Your task to perform on an android device: Open calendar and show me the second week of next month Image 0: 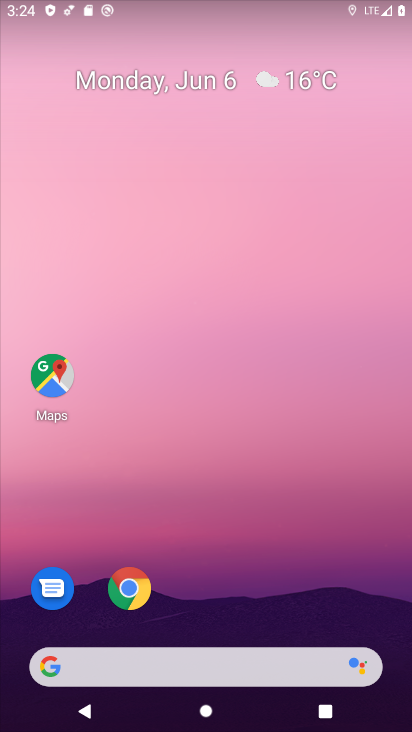
Step 0: drag from (217, 623) to (170, 278)
Your task to perform on an android device: Open calendar and show me the second week of next month Image 1: 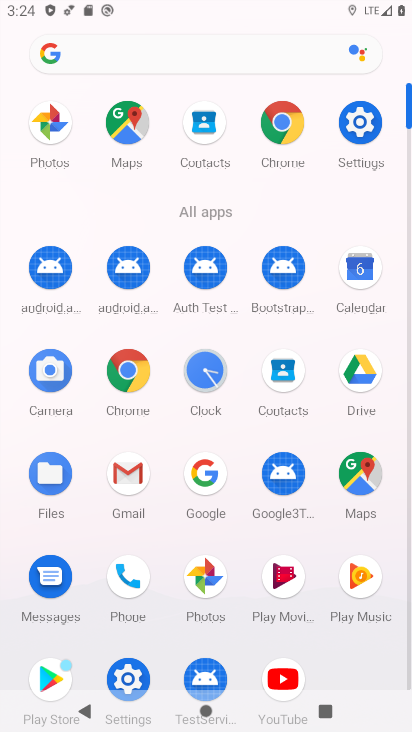
Step 1: click (372, 274)
Your task to perform on an android device: Open calendar and show me the second week of next month Image 2: 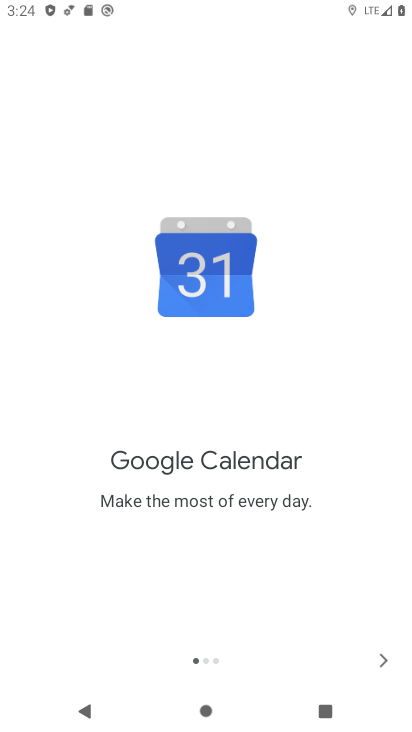
Step 2: click (387, 664)
Your task to perform on an android device: Open calendar and show me the second week of next month Image 3: 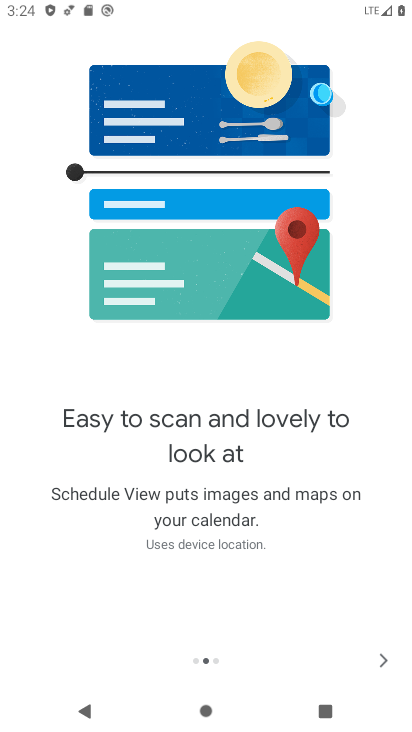
Step 3: click (384, 664)
Your task to perform on an android device: Open calendar and show me the second week of next month Image 4: 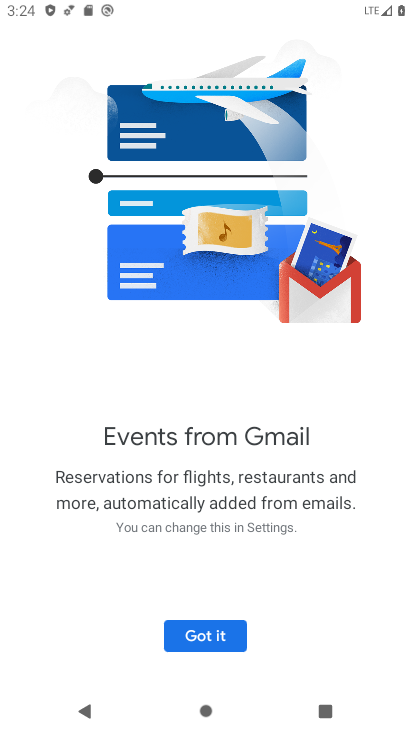
Step 4: click (213, 641)
Your task to perform on an android device: Open calendar and show me the second week of next month Image 5: 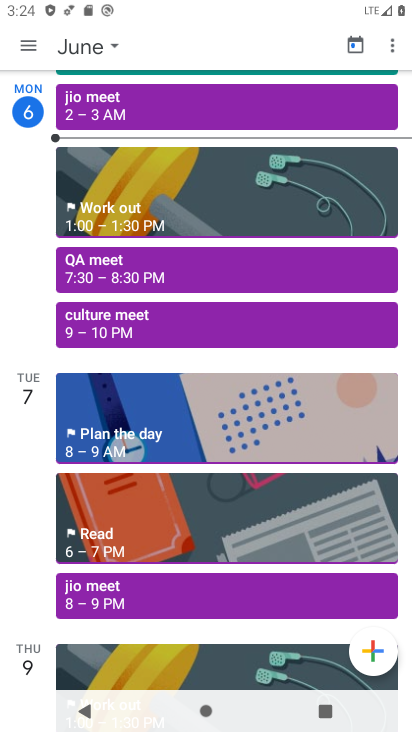
Step 5: click (30, 50)
Your task to perform on an android device: Open calendar and show me the second week of next month Image 6: 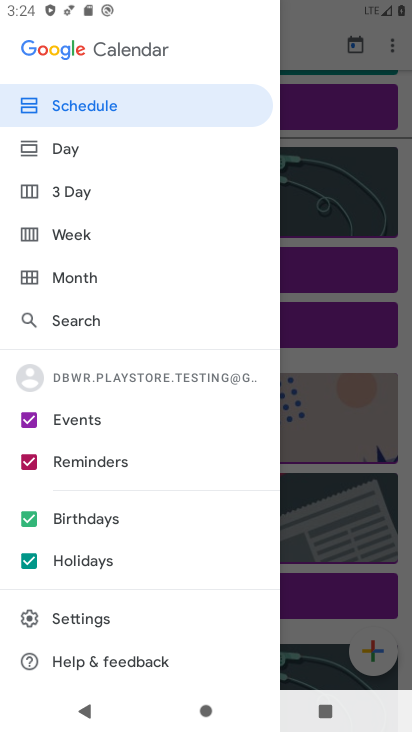
Step 6: click (75, 234)
Your task to perform on an android device: Open calendar and show me the second week of next month Image 7: 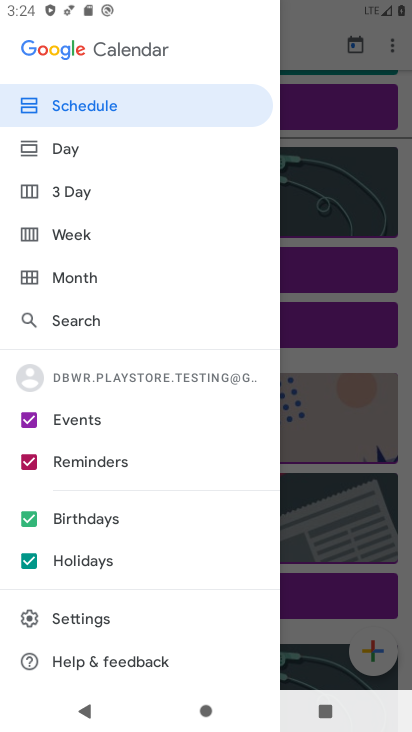
Step 7: click (75, 234)
Your task to perform on an android device: Open calendar and show me the second week of next month Image 8: 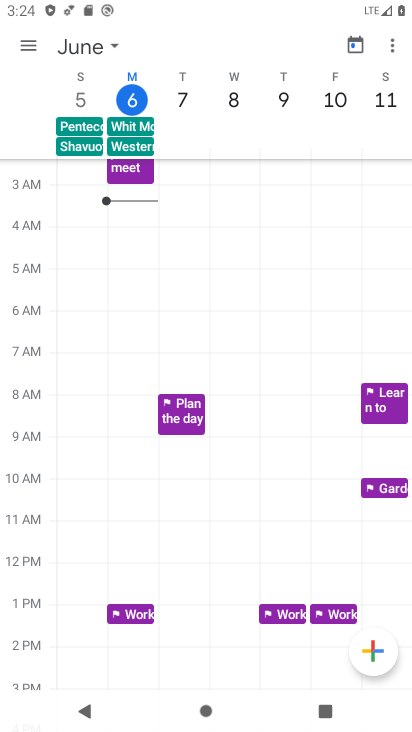
Step 8: click (112, 40)
Your task to perform on an android device: Open calendar and show me the second week of next month Image 9: 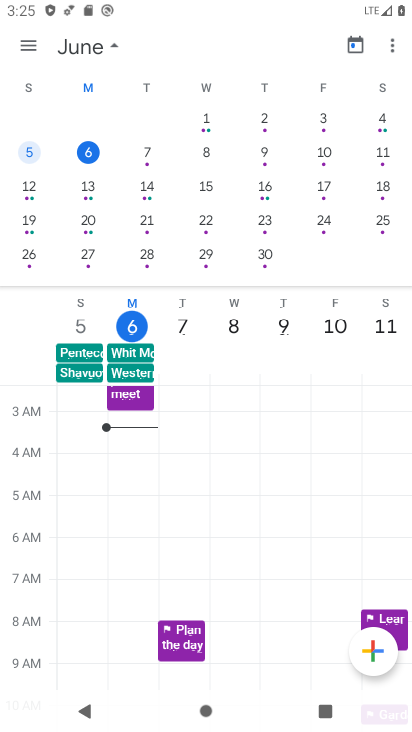
Step 9: drag from (406, 205) to (43, 195)
Your task to perform on an android device: Open calendar and show me the second week of next month Image 10: 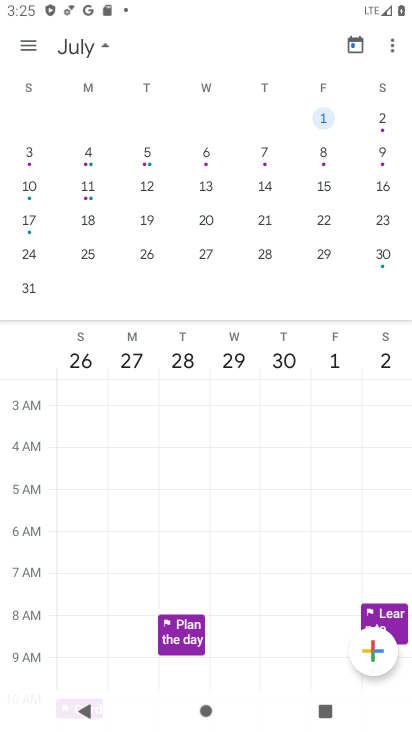
Step 10: click (205, 187)
Your task to perform on an android device: Open calendar and show me the second week of next month Image 11: 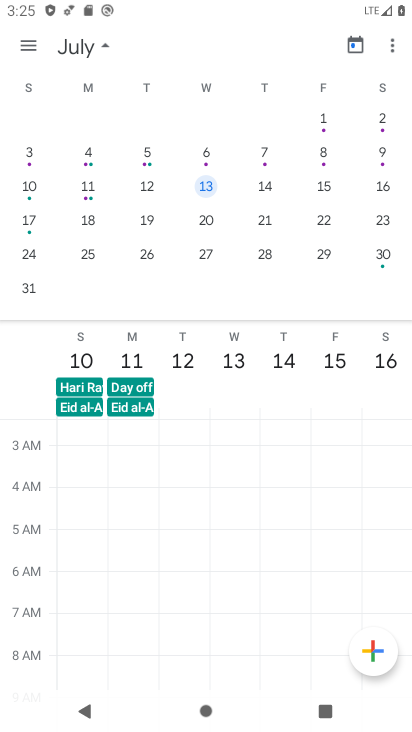
Step 11: task complete